Your task to perform on an android device: delete browsing data in the chrome app Image 0: 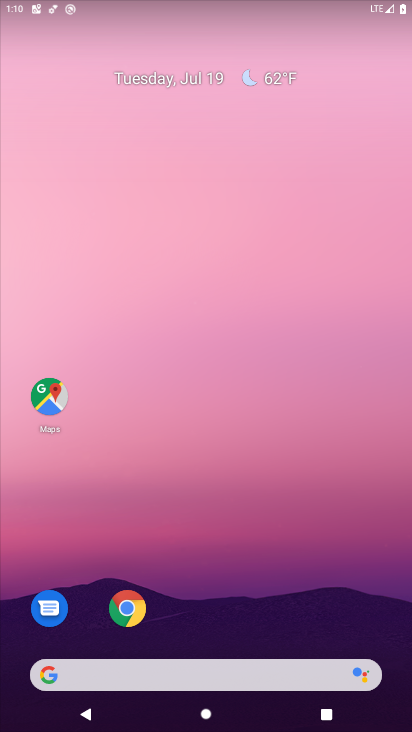
Step 0: click (125, 608)
Your task to perform on an android device: delete browsing data in the chrome app Image 1: 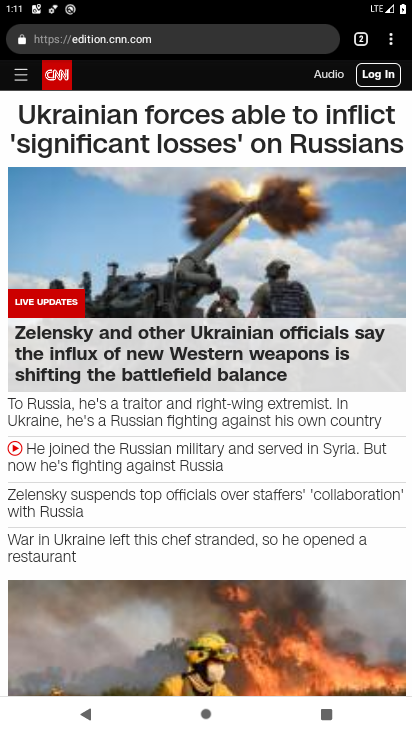
Step 1: click (391, 37)
Your task to perform on an android device: delete browsing data in the chrome app Image 2: 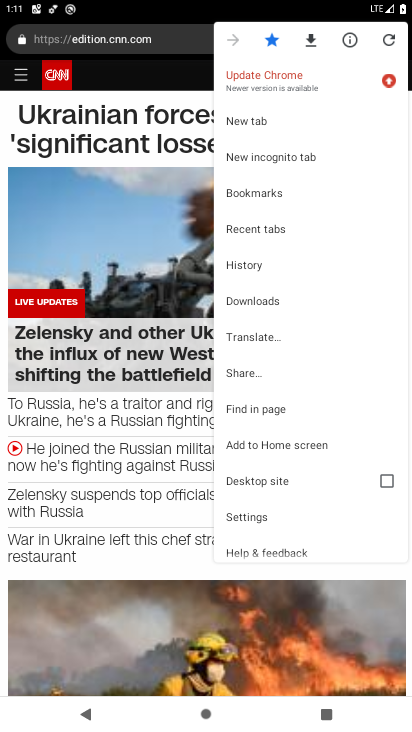
Step 2: click (266, 263)
Your task to perform on an android device: delete browsing data in the chrome app Image 3: 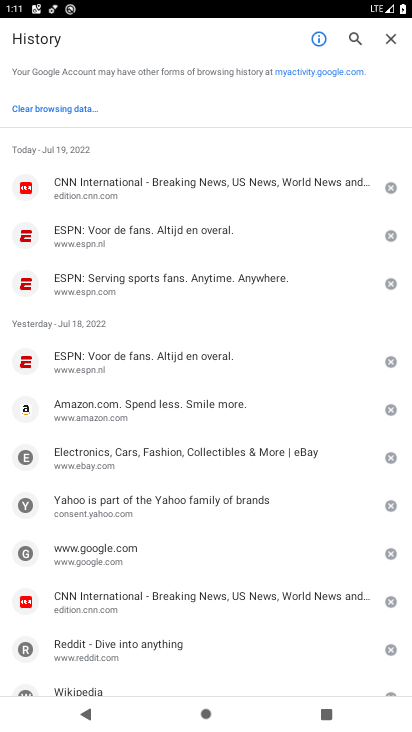
Step 3: click (58, 110)
Your task to perform on an android device: delete browsing data in the chrome app Image 4: 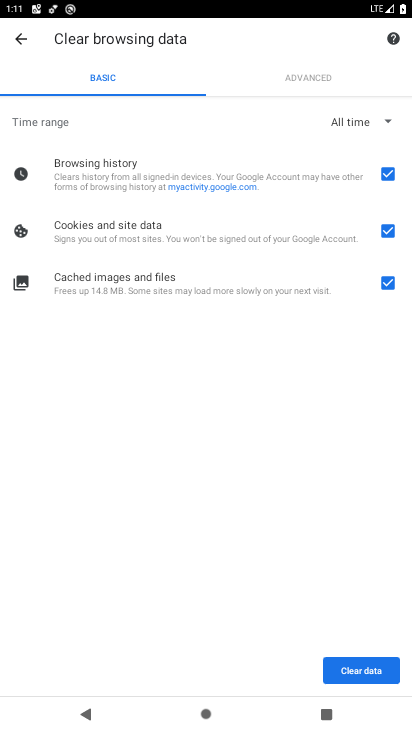
Step 4: click (384, 228)
Your task to perform on an android device: delete browsing data in the chrome app Image 5: 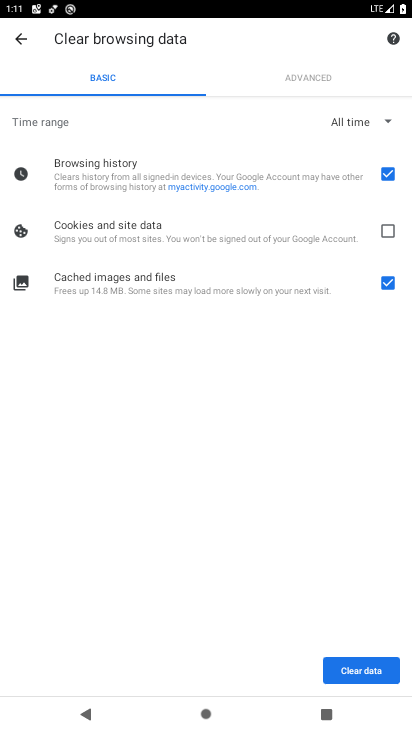
Step 5: click (388, 283)
Your task to perform on an android device: delete browsing data in the chrome app Image 6: 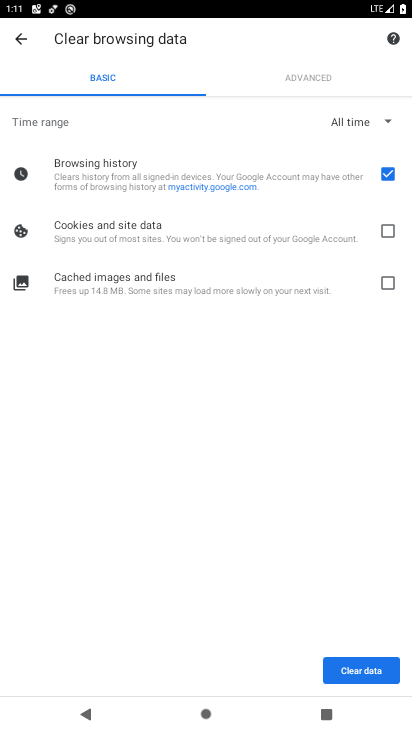
Step 6: click (359, 666)
Your task to perform on an android device: delete browsing data in the chrome app Image 7: 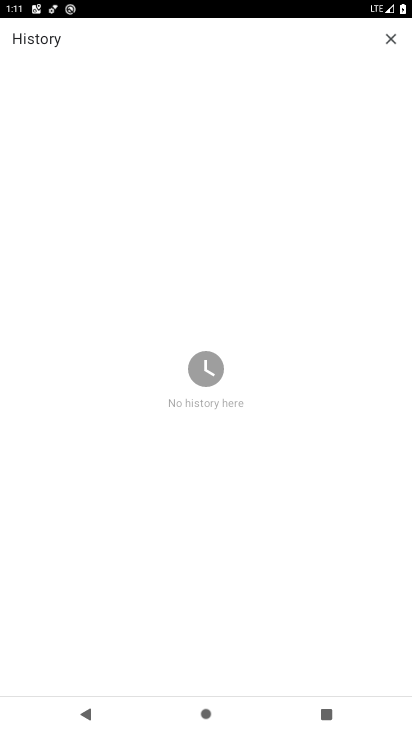
Step 7: task complete